Your task to perform on an android device: What is the news today? Image 0: 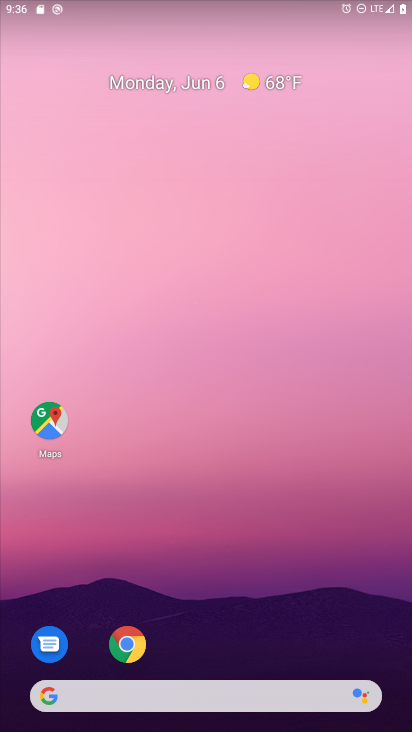
Step 0: drag from (296, 710) to (291, 189)
Your task to perform on an android device: What is the news today? Image 1: 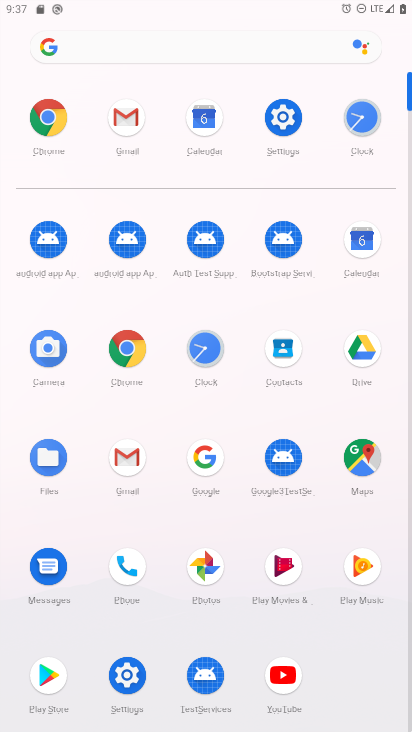
Step 1: drag from (271, 717) to (200, 269)
Your task to perform on an android device: What is the news today? Image 2: 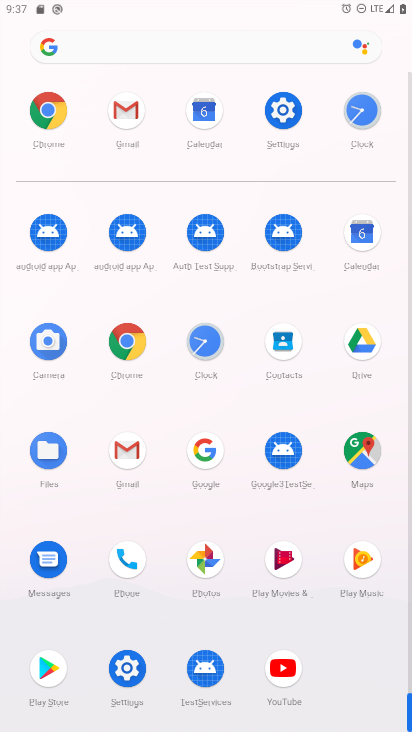
Step 2: click (120, 47)
Your task to perform on an android device: What is the news today? Image 3: 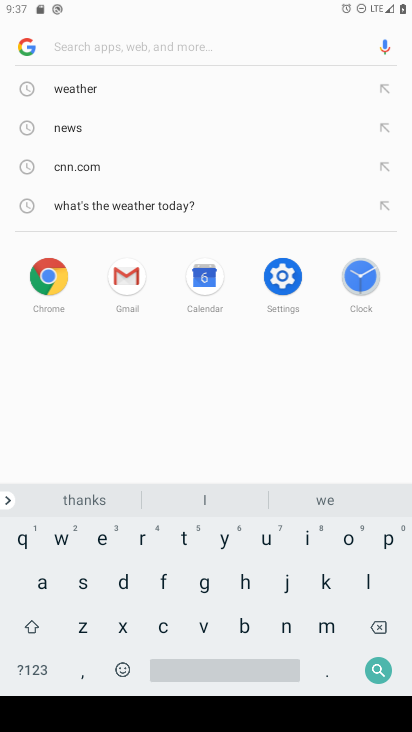
Step 3: click (97, 127)
Your task to perform on an android device: What is the news today? Image 4: 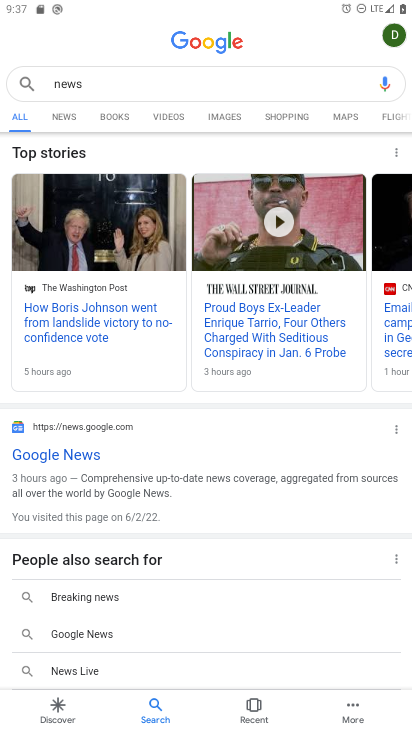
Step 4: task complete